Your task to perform on an android device: see sites visited before in the chrome app Image 0: 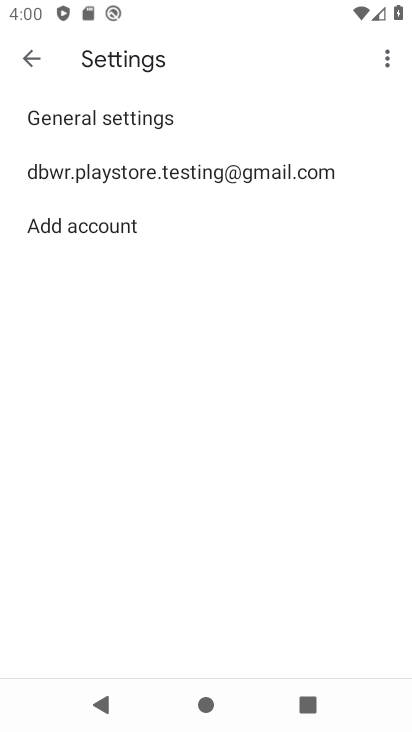
Step 0: press home button
Your task to perform on an android device: see sites visited before in the chrome app Image 1: 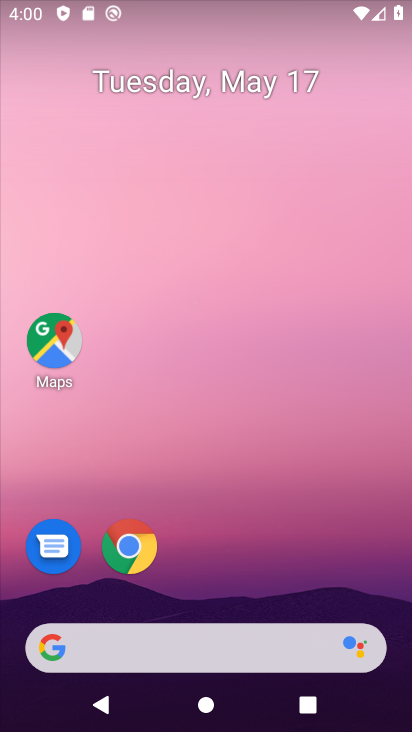
Step 1: click (113, 559)
Your task to perform on an android device: see sites visited before in the chrome app Image 2: 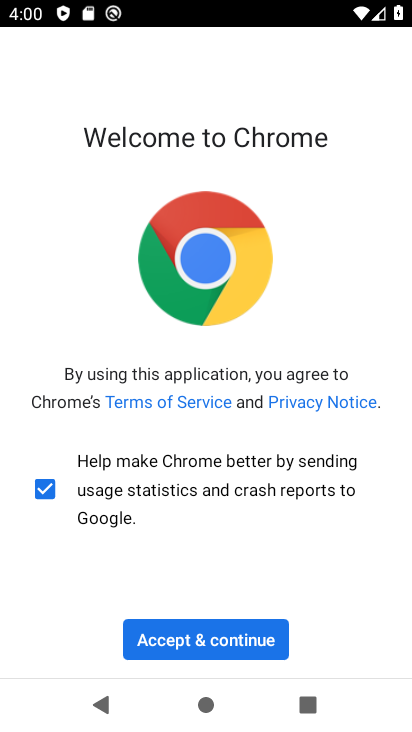
Step 2: click (199, 638)
Your task to perform on an android device: see sites visited before in the chrome app Image 3: 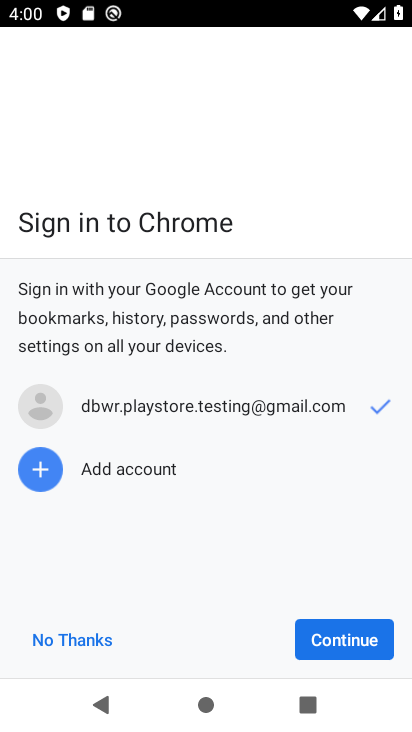
Step 3: click (378, 622)
Your task to perform on an android device: see sites visited before in the chrome app Image 4: 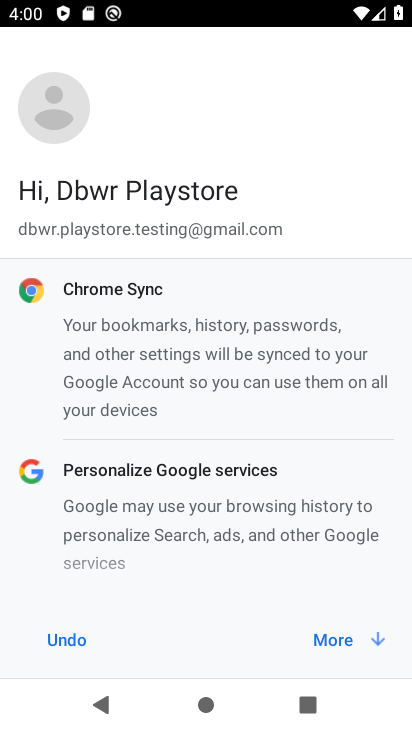
Step 4: click (365, 629)
Your task to perform on an android device: see sites visited before in the chrome app Image 5: 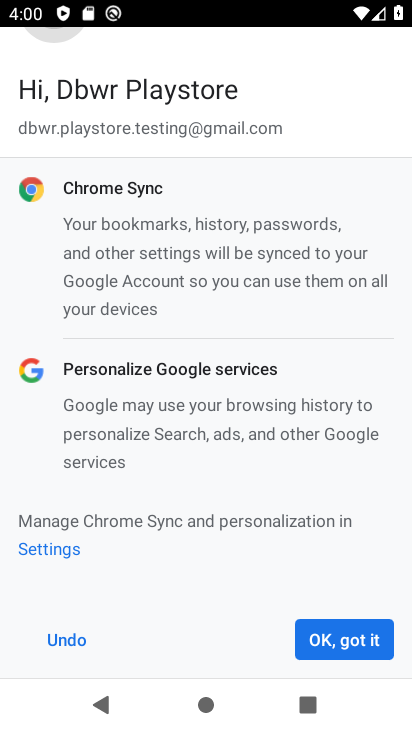
Step 5: click (362, 627)
Your task to perform on an android device: see sites visited before in the chrome app Image 6: 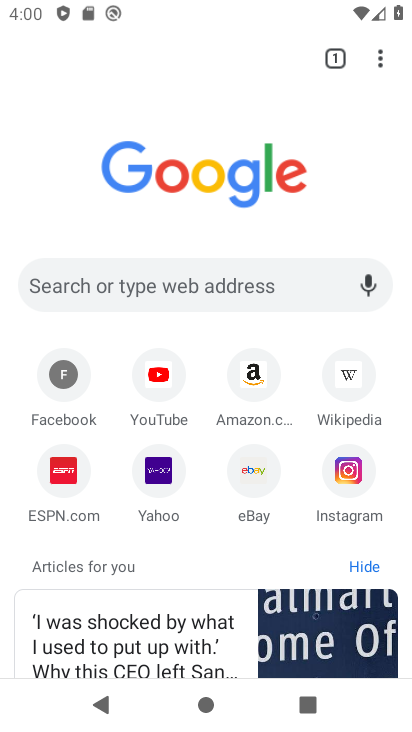
Step 6: click (388, 62)
Your task to perform on an android device: see sites visited before in the chrome app Image 7: 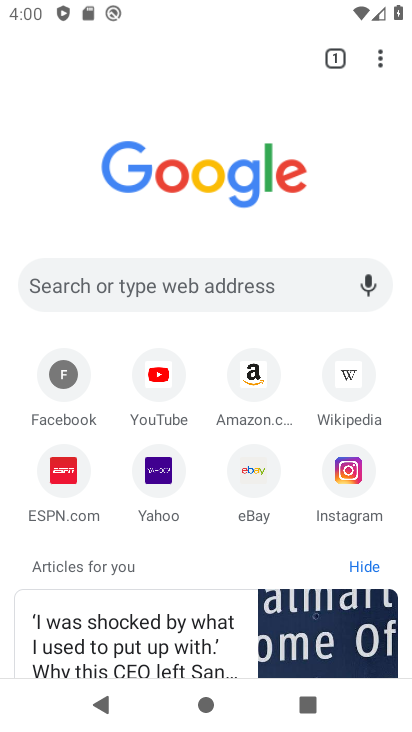
Step 7: task complete